Your task to perform on an android device: open a bookmark in the chrome app Image 0: 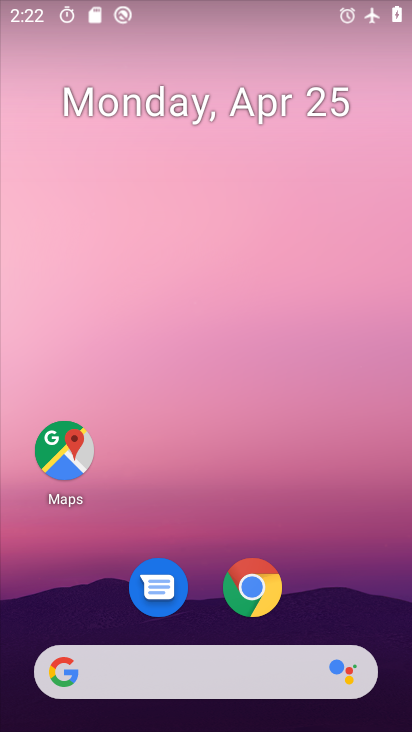
Step 0: click (337, 377)
Your task to perform on an android device: open a bookmark in the chrome app Image 1: 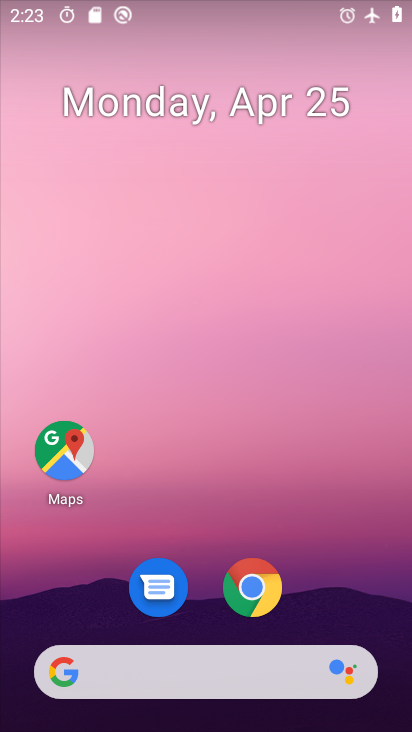
Step 1: click (265, 592)
Your task to perform on an android device: open a bookmark in the chrome app Image 2: 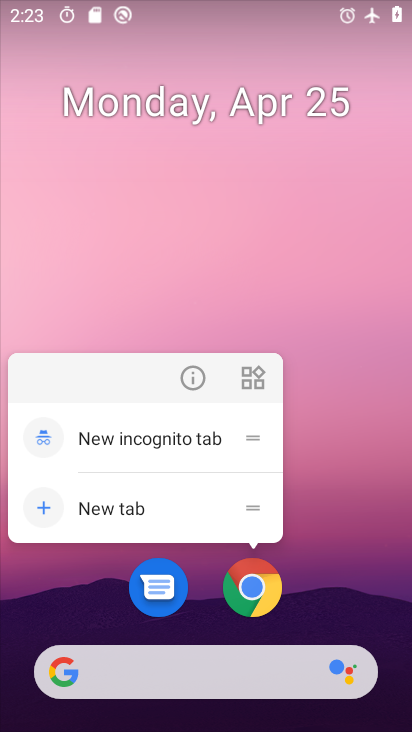
Step 2: click (256, 593)
Your task to perform on an android device: open a bookmark in the chrome app Image 3: 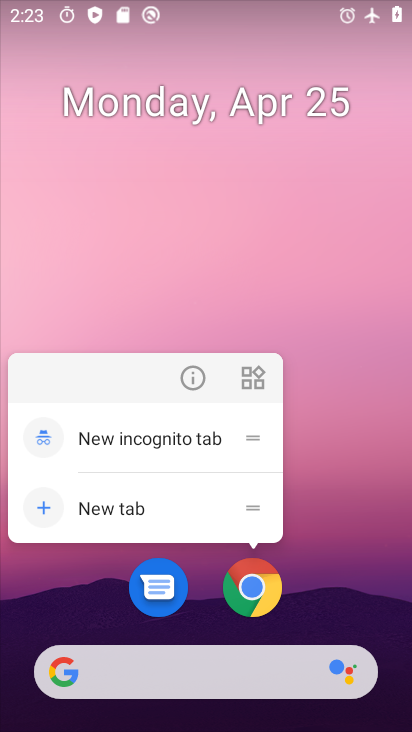
Step 3: click (369, 532)
Your task to perform on an android device: open a bookmark in the chrome app Image 4: 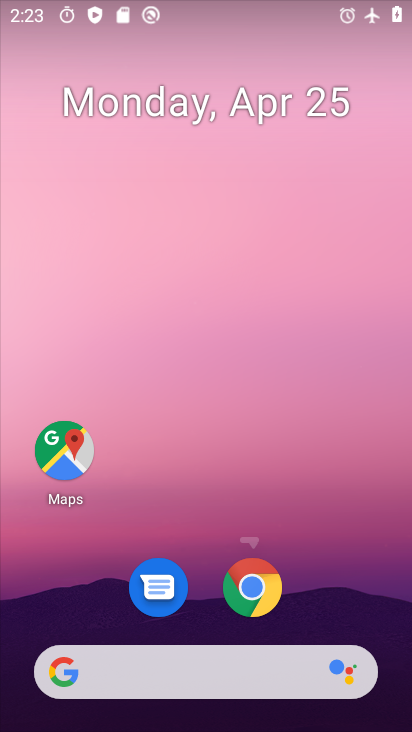
Step 4: drag from (340, 527) to (307, 58)
Your task to perform on an android device: open a bookmark in the chrome app Image 5: 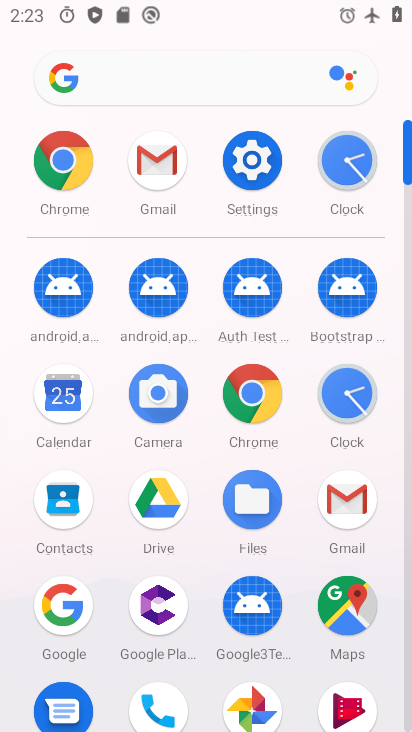
Step 5: click (260, 405)
Your task to perform on an android device: open a bookmark in the chrome app Image 6: 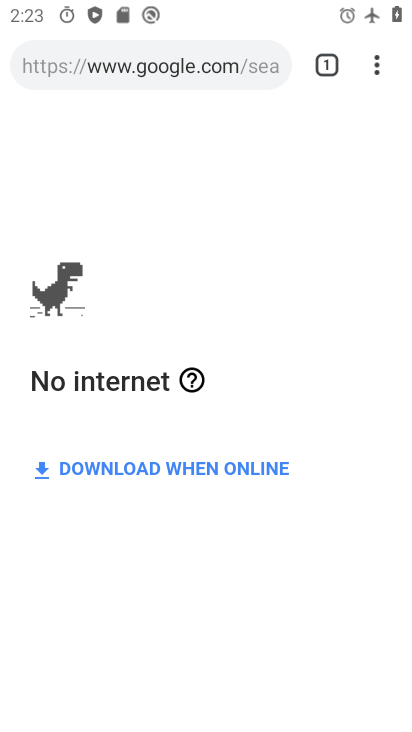
Step 6: task complete